Your task to perform on an android device: check storage Image 0: 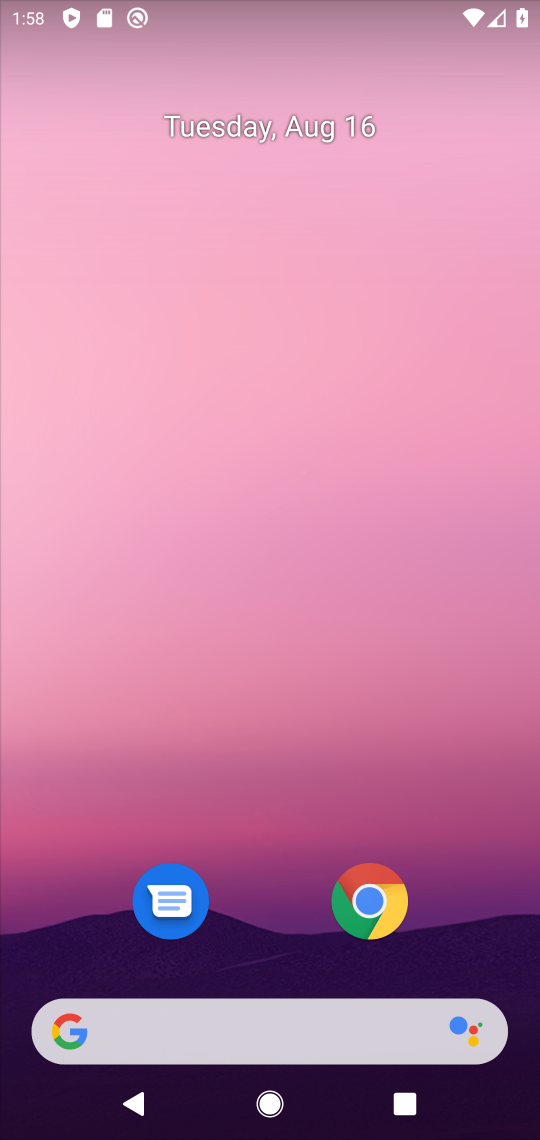
Step 0: press home button
Your task to perform on an android device: check storage Image 1: 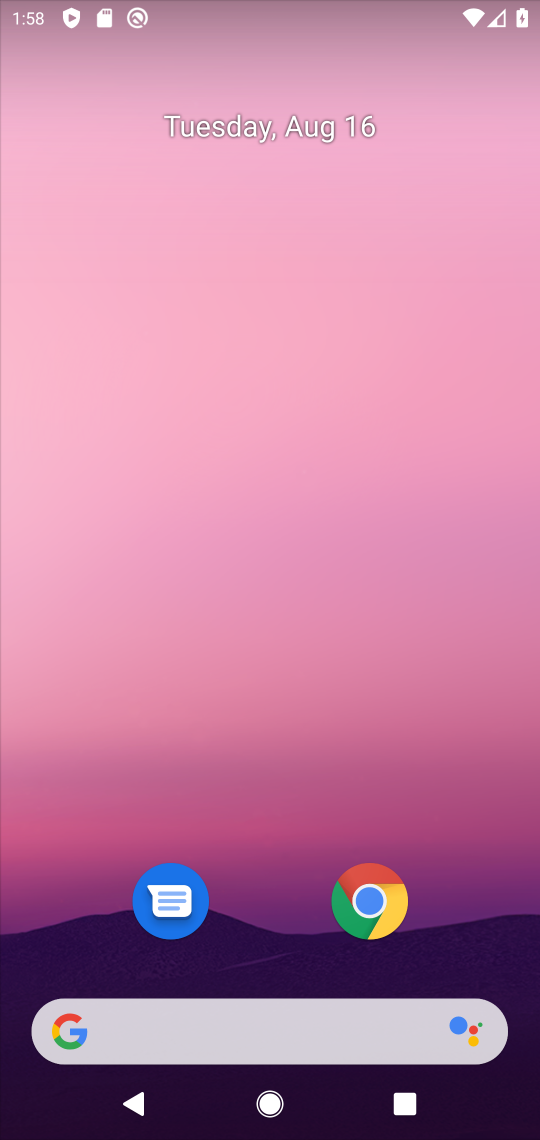
Step 1: drag from (293, 902) to (298, 249)
Your task to perform on an android device: check storage Image 2: 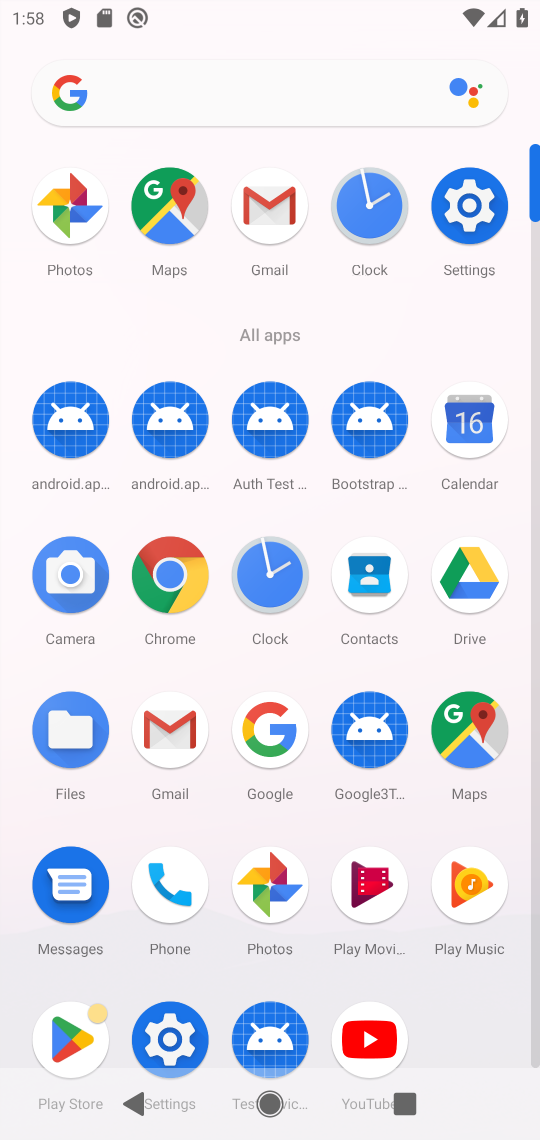
Step 2: click (476, 218)
Your task to perform on an android device: check storage Image 3: 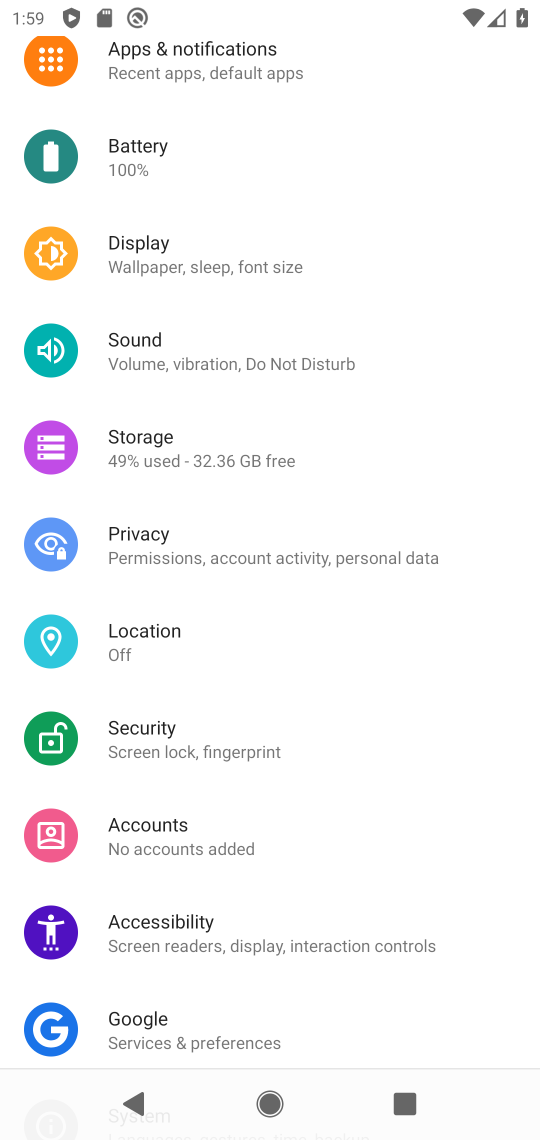
Step 3: click (142, 454)
Your task to perform on an android device: check storage Image 4: 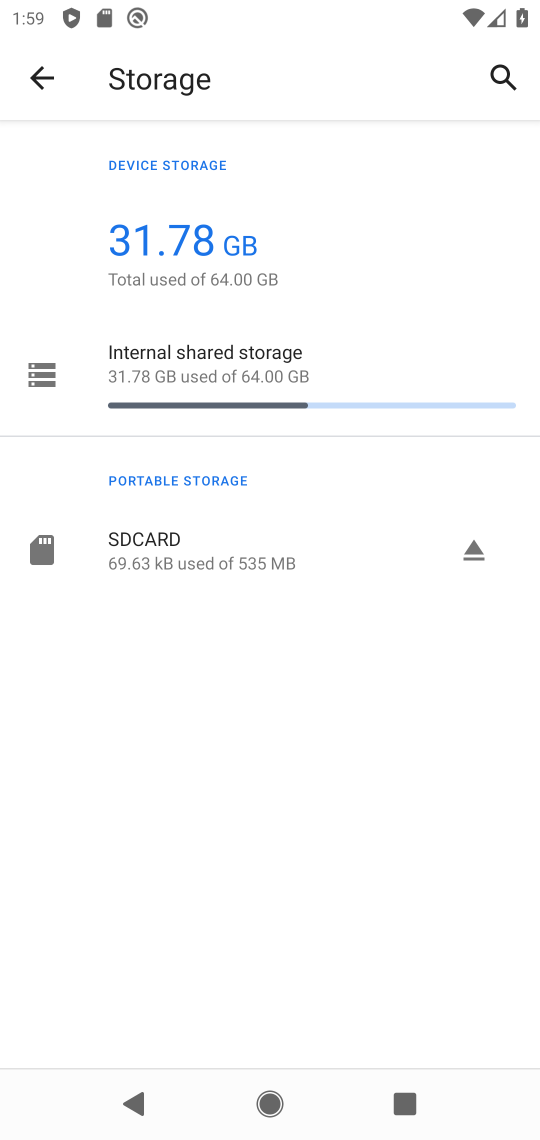
Step 4: task complete